Your task to perform on an android device: change keyboard looks Image 0: 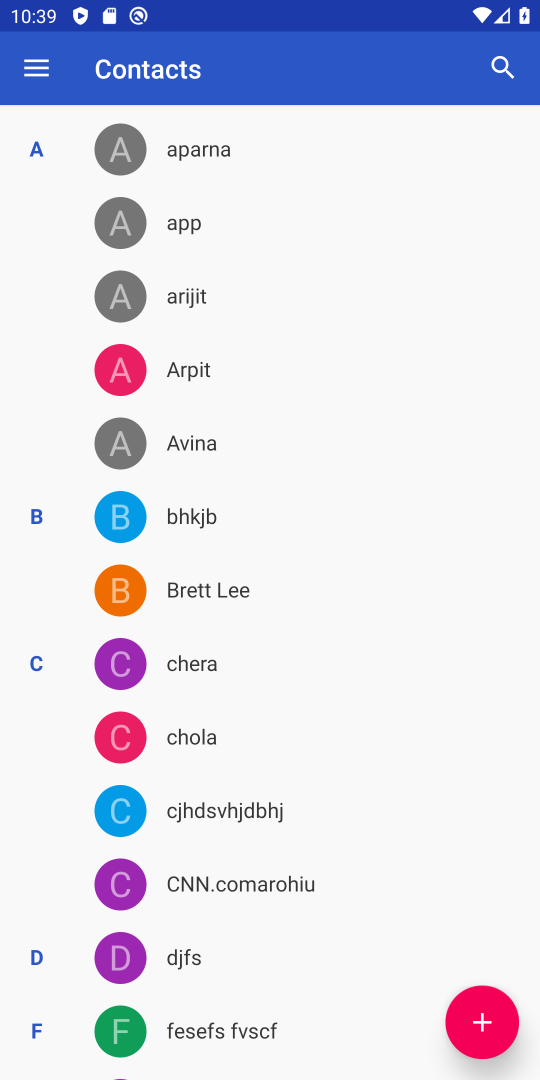
Step 0: press home button
Your task to perform on an android device: change keyboard looks Image 1: 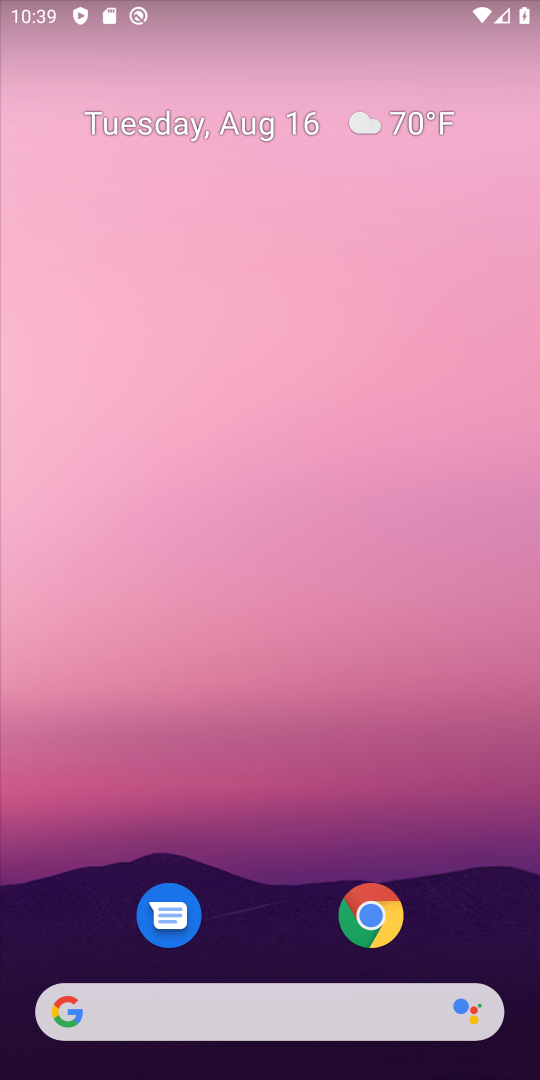
Step 1: drag from (275, 963) to (285, 4)
Your task to perform on an android device: change keyboard looks Image 2: 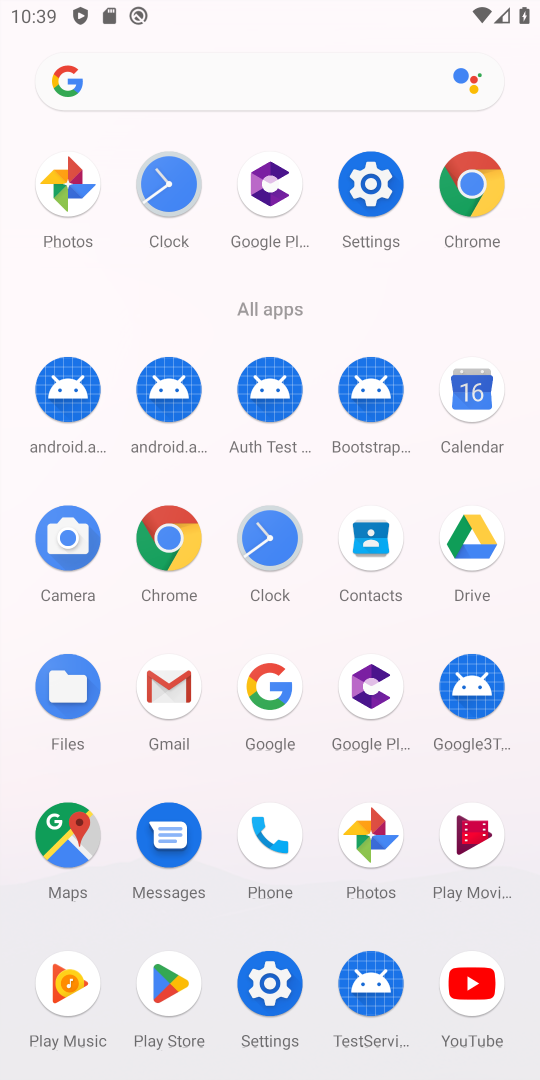
Step 2: click (365, 186)
Your task to perform on an android device: change keyboard looks Image 3: 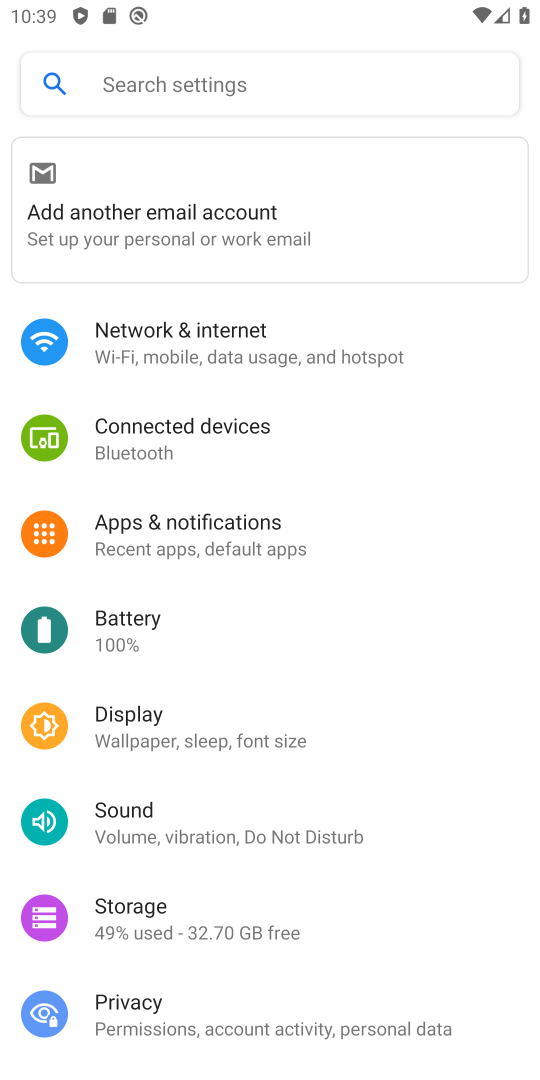
Step 3: drag from (136, 926) to (218, 173)
Your task to perform on an android device: change keyboard looks Image 4: 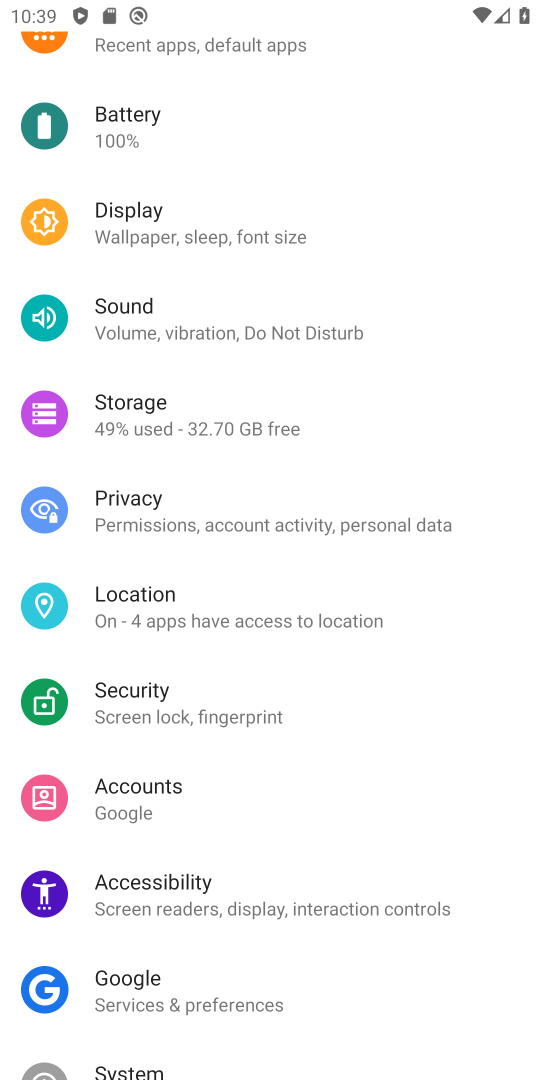
Step 4: drag from (126, 942) to (420, 107)
Your task to perform on an android device: change keyboard looks Image 5: 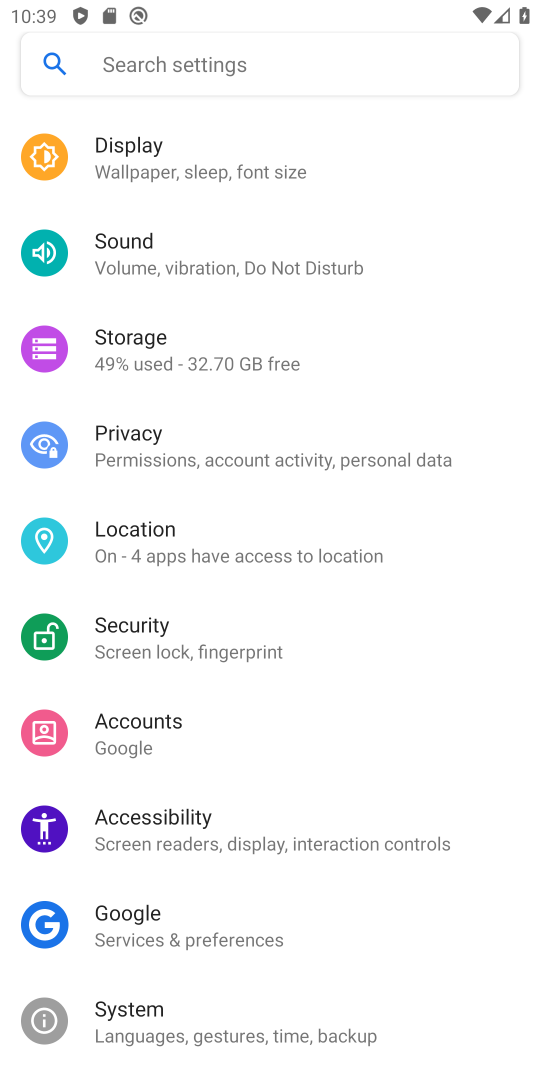
Step 5: click (110, 899)
Your task to perform on an android device: change keyboard looks Image 6: 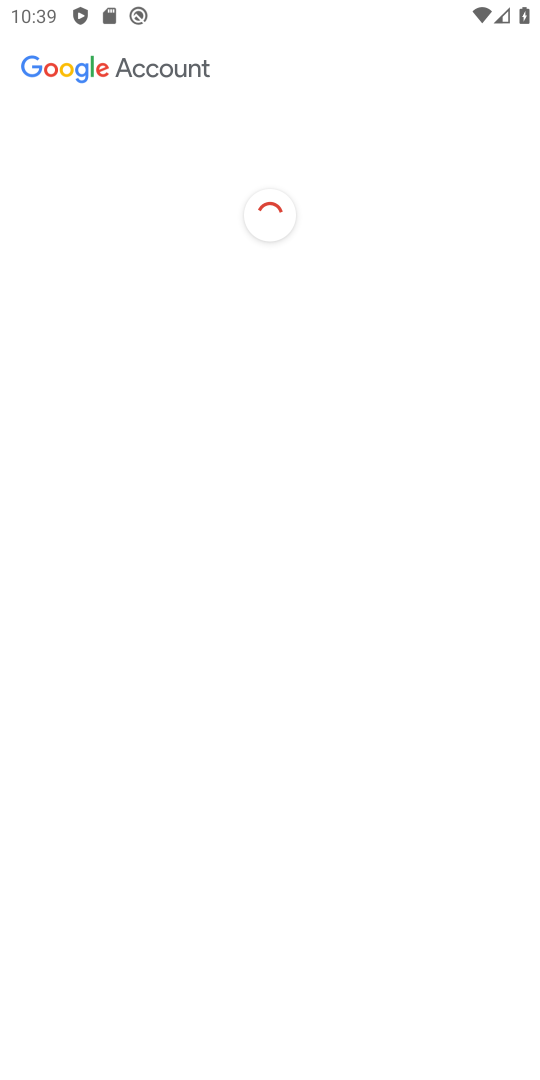
Step 6: press back button
Your task to perform on an android device: change keyboard looks Image 7: 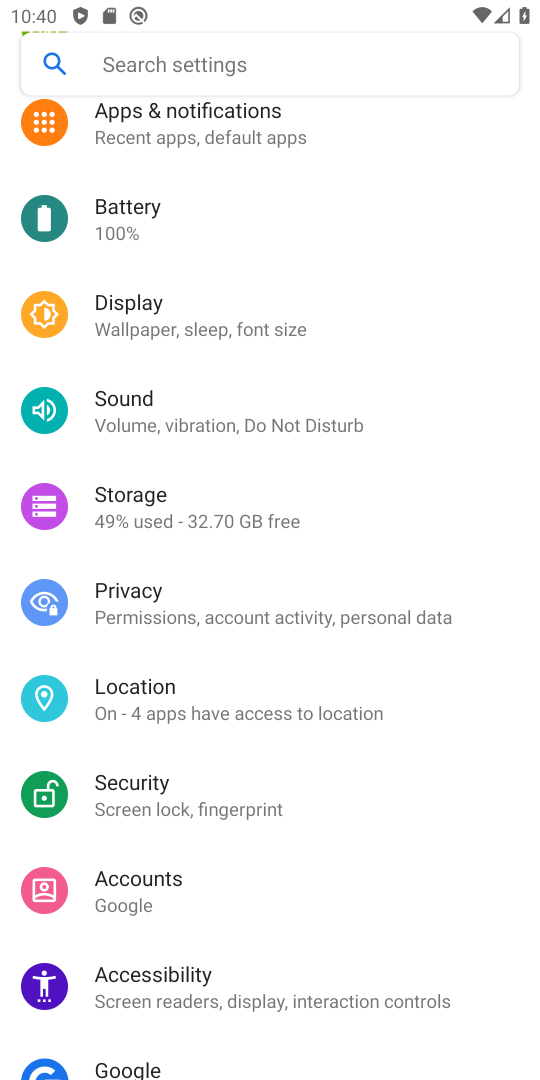
Step 7: drag from (238, 1007) to (148, 365)
Your task to perform on an android device: change keyboard looks Image 8: 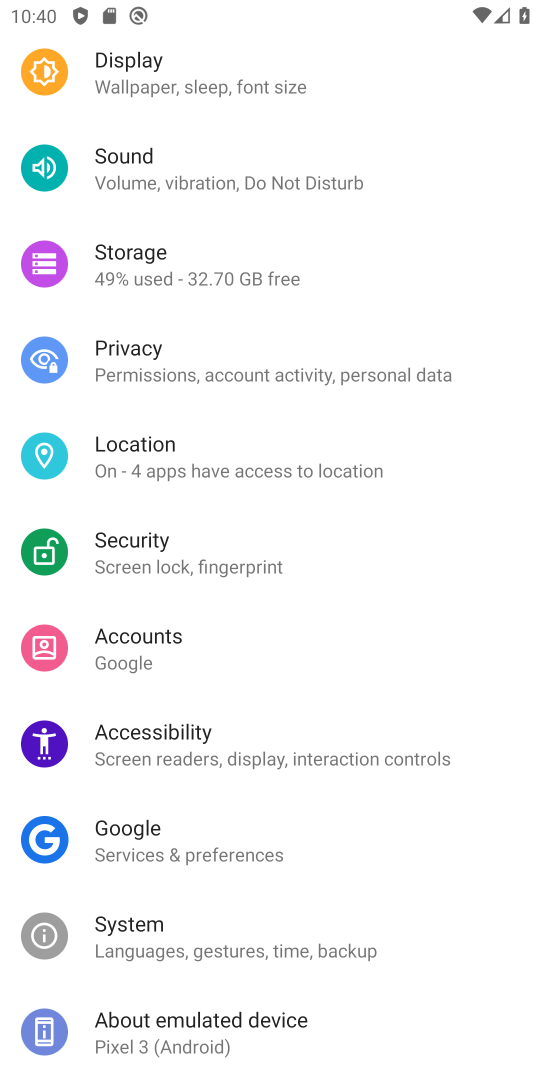
Step 8: click (168, 932)
Your task to perform on an android device: change keyboard looks Image 9: 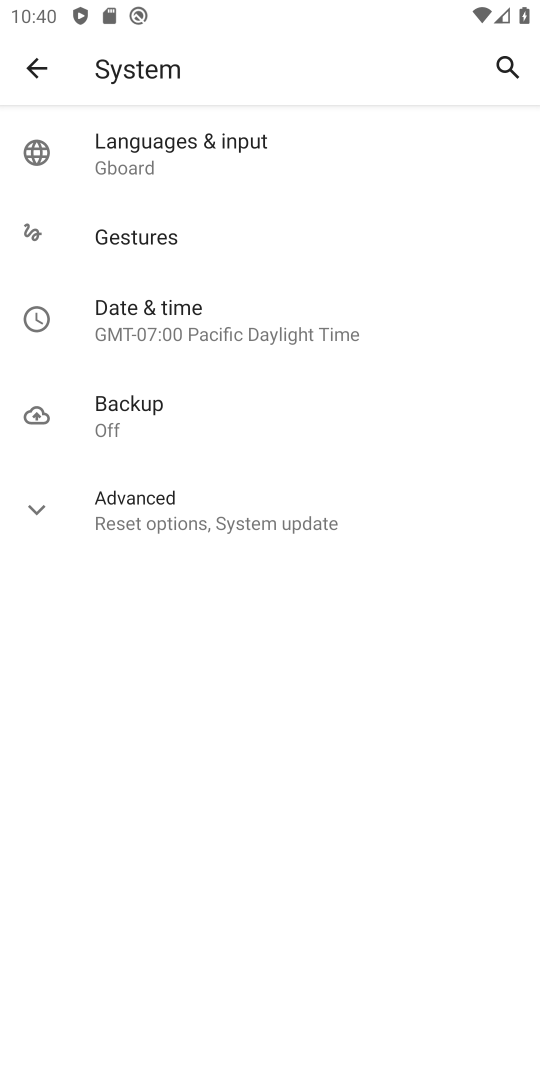
Step 9: click (142, 137)
Your task to perform on an android device: change keyboard looks Image 10: 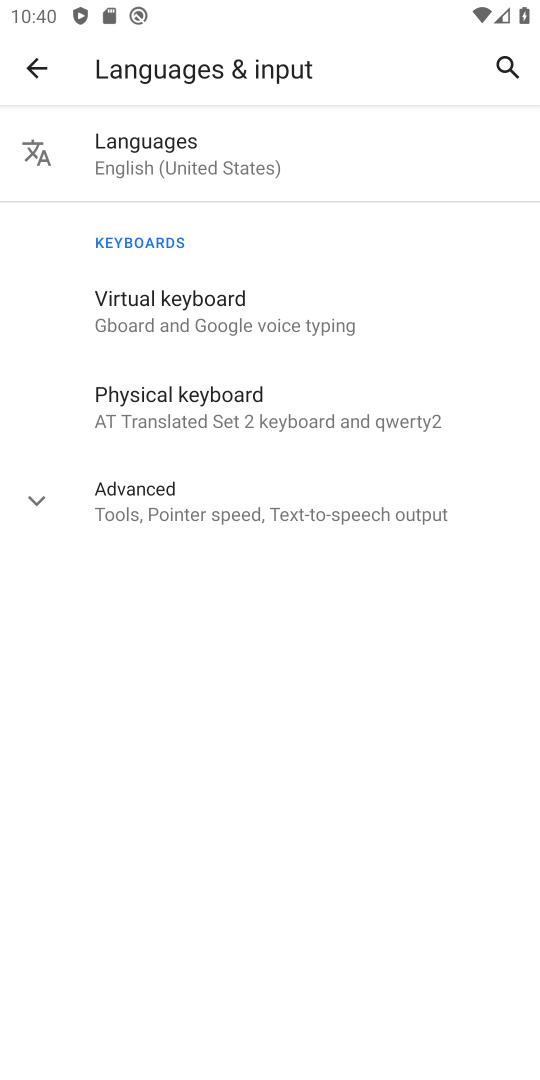
Step 10: click (129, 274)
Your task to perform on an android device: change keyboard looks Image 11: 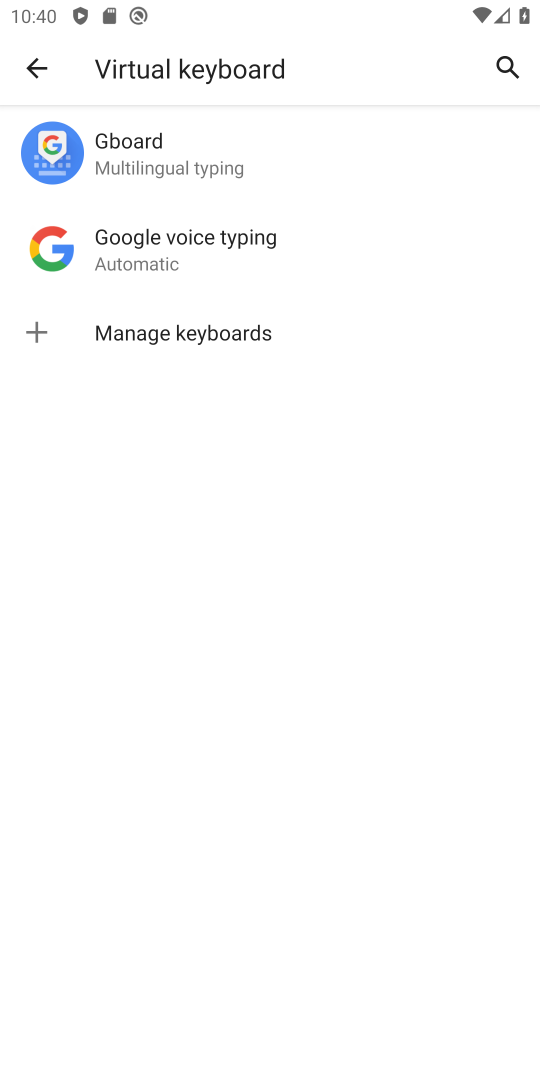
Step 11: click (110, 178)
Your task to perform on an android device: change keyboard looks Image 12: 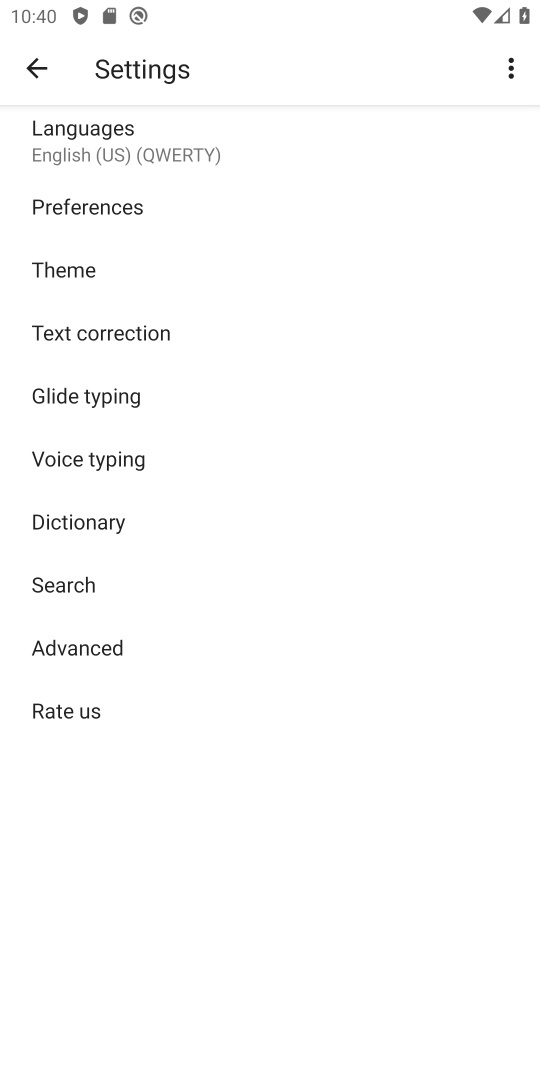
Step 12: click (49, 246)
Your task to perform on an android device: change keyboard looks Image 13: 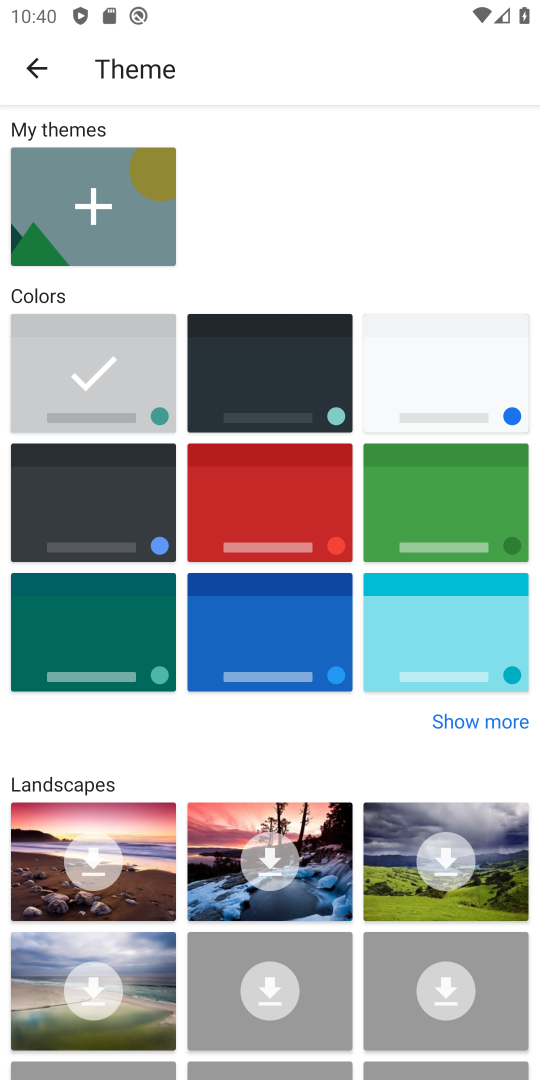
Step 13: click (231, 467)
Your task to perform on an android device: change keyboard looks Image 14: 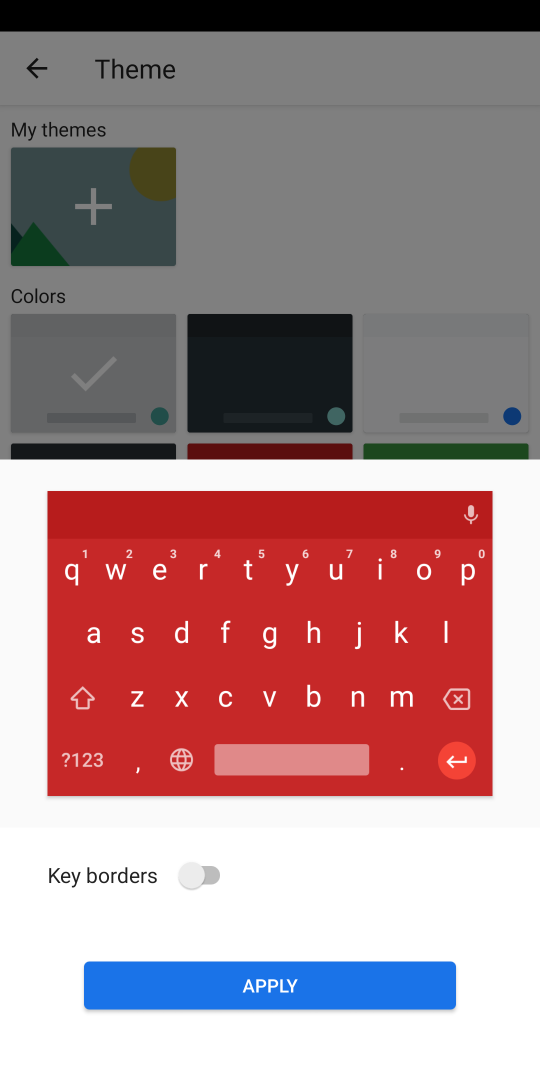
Step 14: click (234, 983)
Your task to perform on an android device: change keyboard looks Image 15: 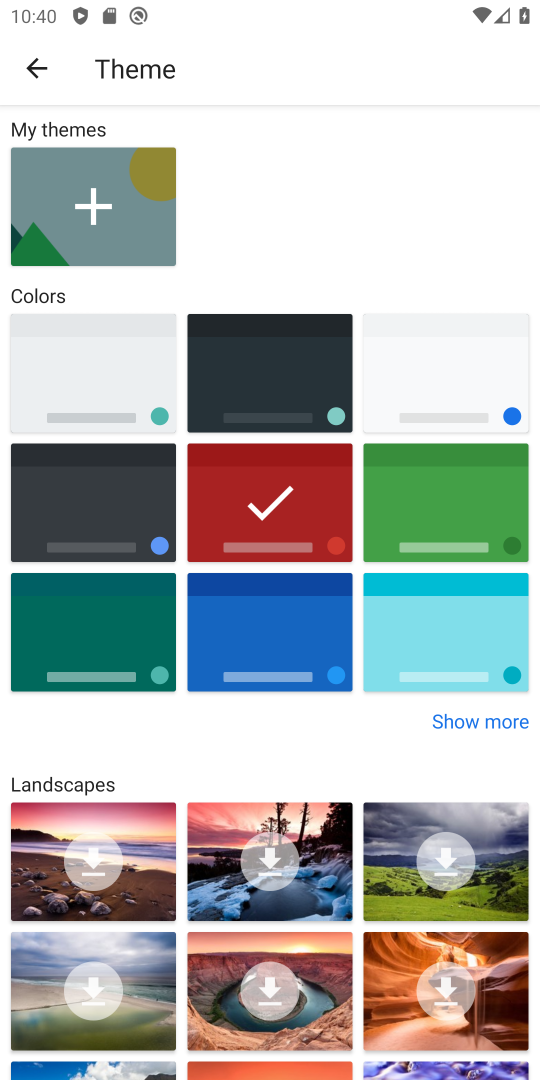
Step 15: task complete